Your task to perform on an android device: Set the phone to "Do not disturb". Image 0: 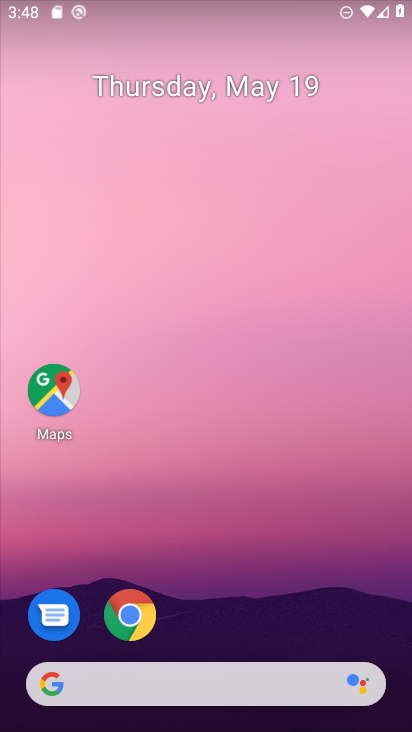
Step 0: drag from (282, 583) to (210, 172)
Your task to perform on an android device: Set the phone to "Do not disturb". Image 1: 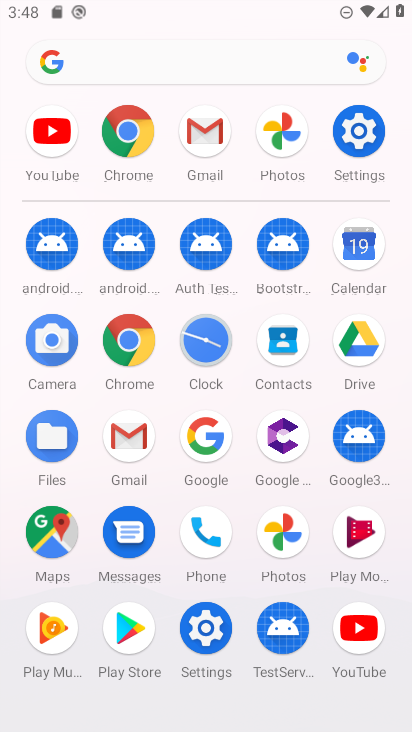
Step 1: click (357, 132)
Your task to perform on an android device: Set the phone to "Do not disturb". Image 2: 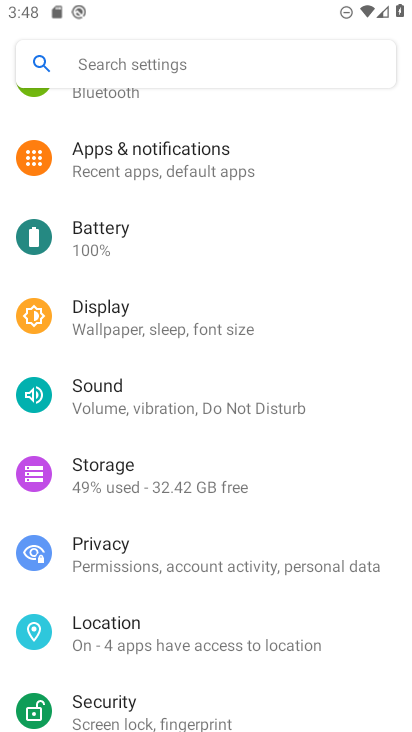
Step 2: click (220, 413)
Your task to perform on an android device: Set the phone to "Do not disturb". Image 3: 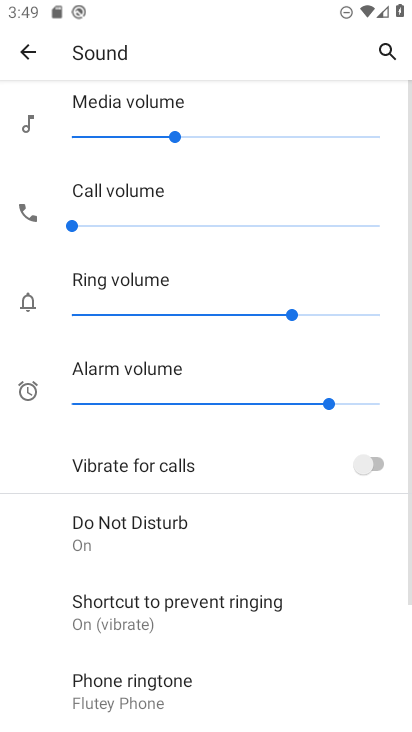
Step 3: click (238, 537)
Your task to perform on an android device: Set the phone to "Do not disturb". Image 4: 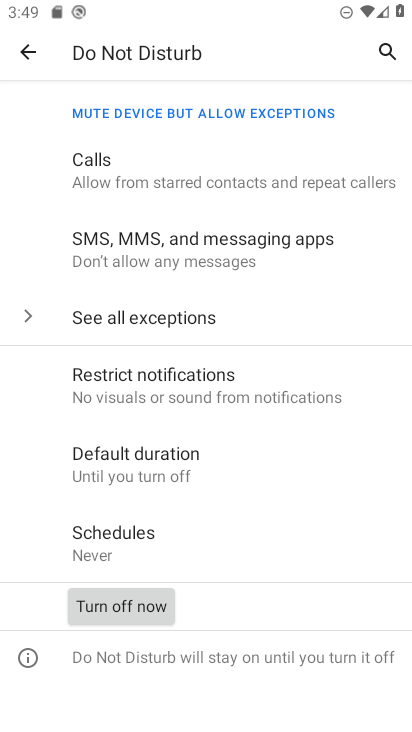
Step 4: task complete